Your task to perform on an android device: turn off sleep mode Image 0: 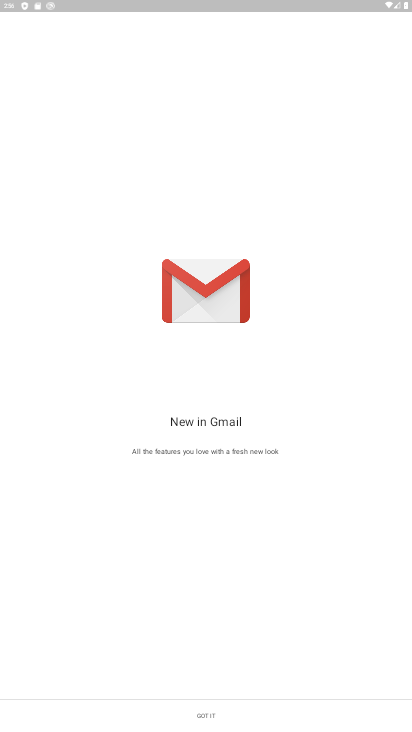
Step 0: press home button
Your task to perform on an android device: turn off sleep mode Image 1: 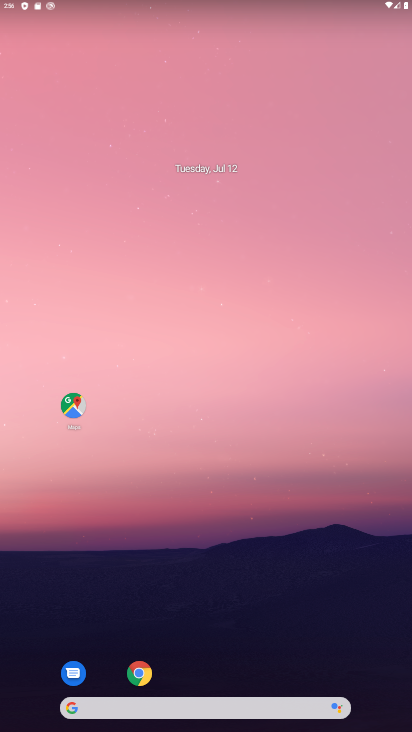
Step 1: drag from (199, 693) to (242, 38)
Your task to perform on an android device: turn off sleep mode Image 2: 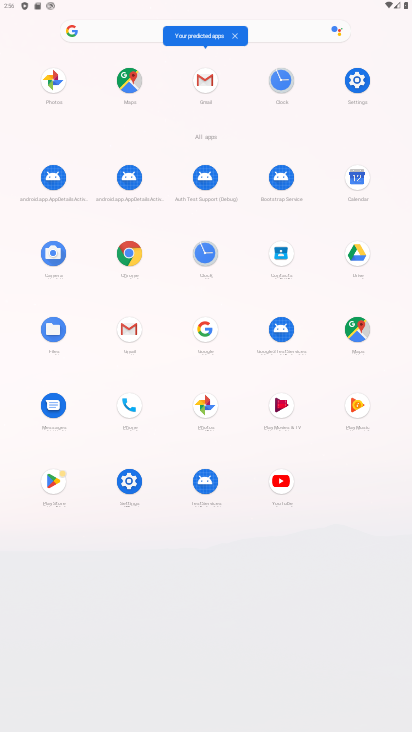
Step 2: click (356, 79)
Your task to perform on an android device: turn off sleep mode Image 3: 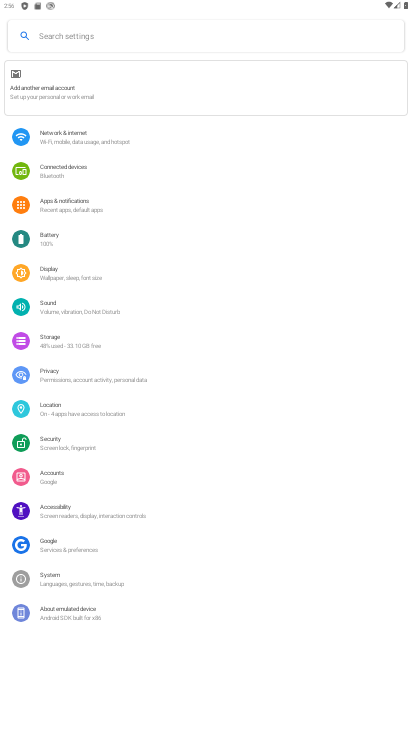
Step 3: click (67, 278)
Your task to perform on an android device: turn off sleep mode Image 4: 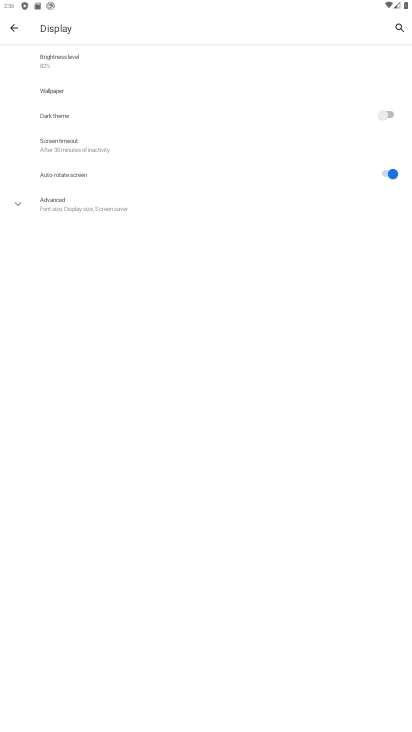
Step 4: click (92, 154)
Your task to perform on an android device: turn off sleep mode Image 5: 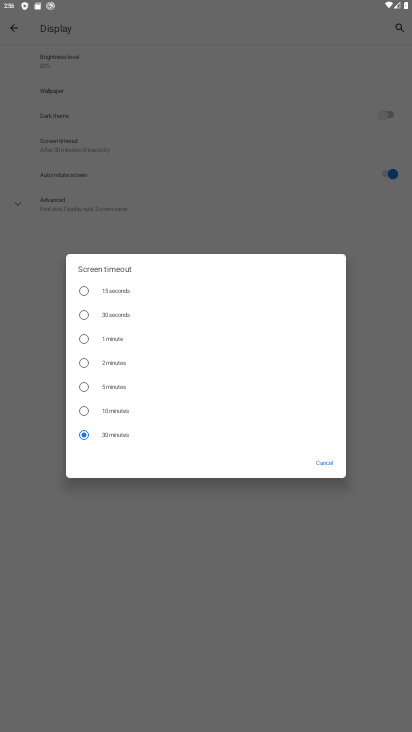
Step 5: click (141, 546)
Your task to perform on an android device: turn off sleep mode Image 6: 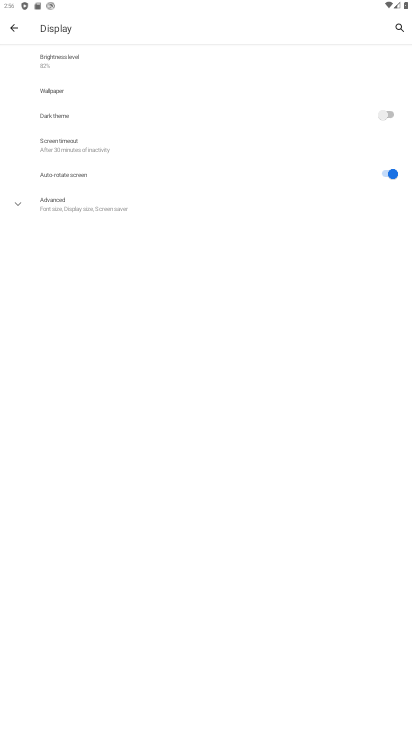
Step 6: click (67, 208)
Your task to perform on an android device: turn off sleep mode Image 7: 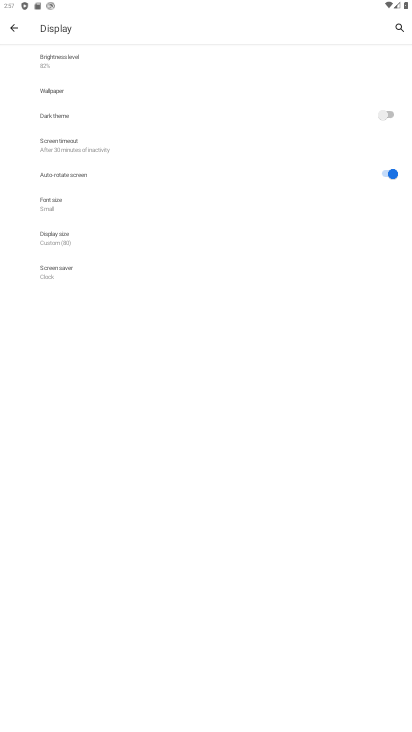
Step 7: task complete